Your task to perform on an android device: check out phone information Image 0: 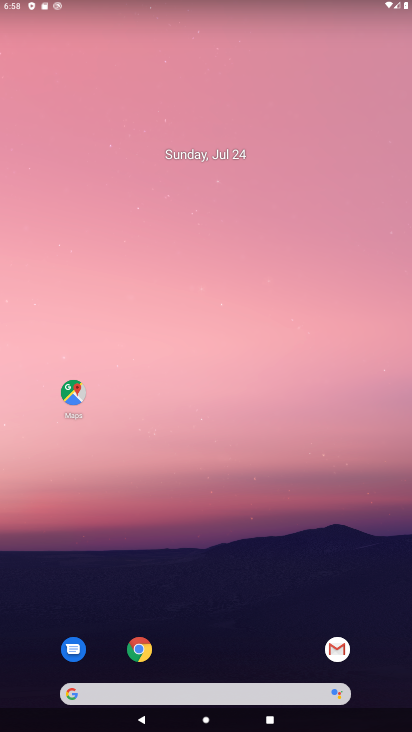
Step 0: drag from (243, 706) to (193, 317)
Your task to perform on an android device: check out phone information Image 1: 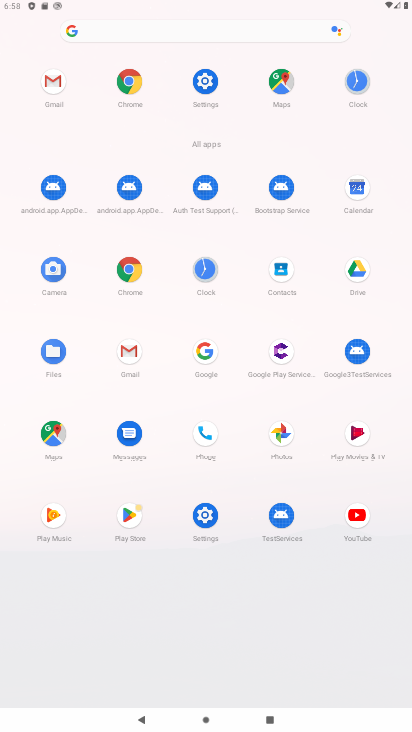
Step 1: click (201, 79)
Your task to perform on an android device: check out phone information Image 2: 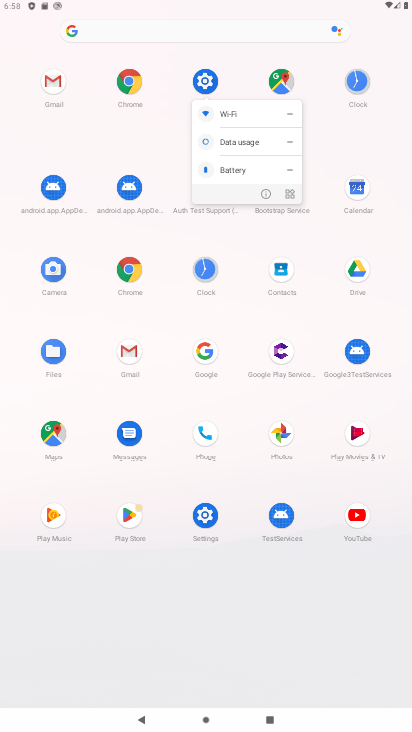
Step 2: click (212, 90)
Your task to perform on an android device: check out phone information Image 3: 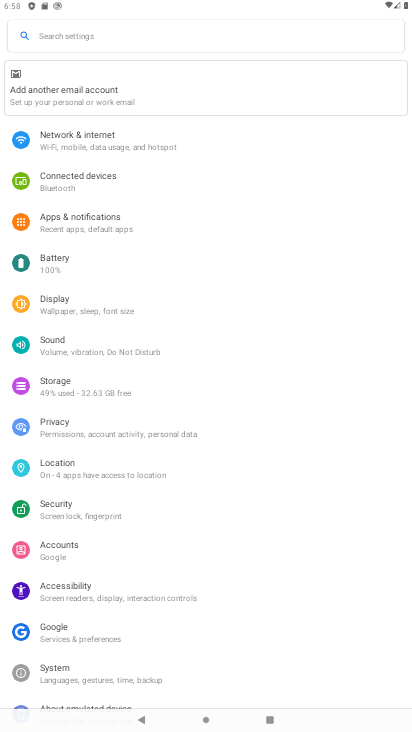
Step 3: click (80, 42)
Your task to perform on an android device: check out phone information Image 4: 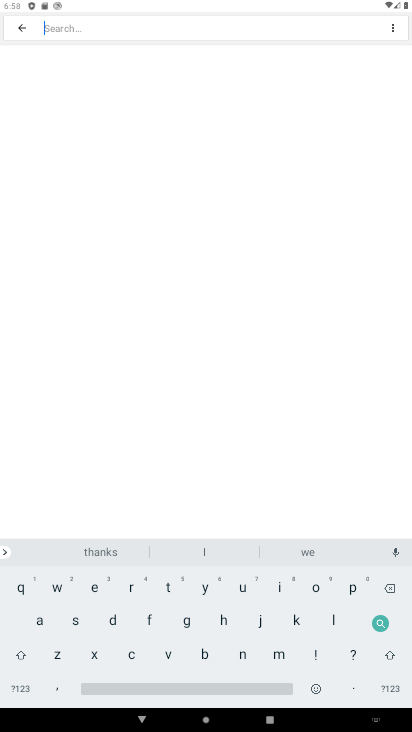
Step 4: click (38, 618)
Your task to perform on an android device: check out phone information Image 5: 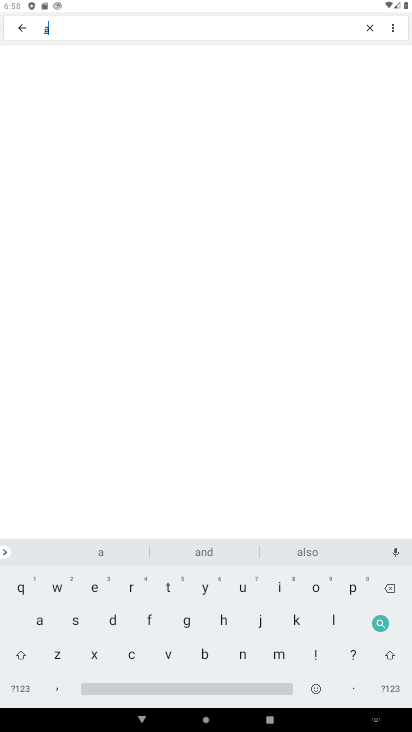
Step 5: click (200, 655)
Your task to perform on an android device: check out phone information Image 6: 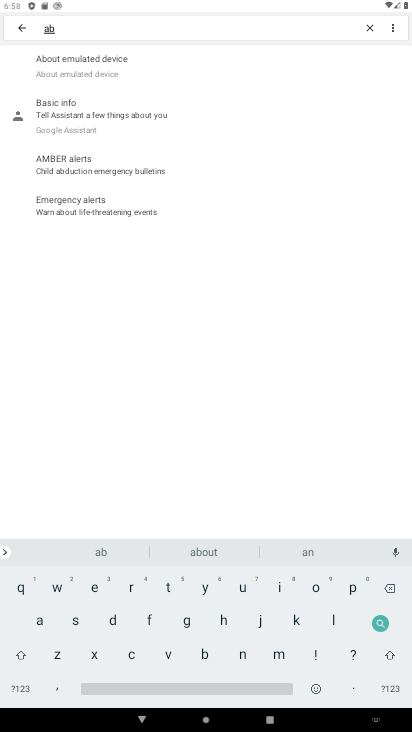
Step 6: click (105, 78)
Your task to perform on an android device: check out phone information Image 7: 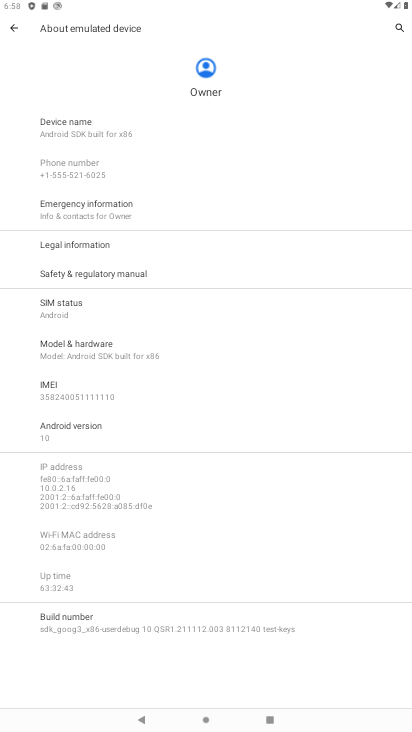
Step 7: task complete